Your task to perform on an android device: What is the news today? Image 0: 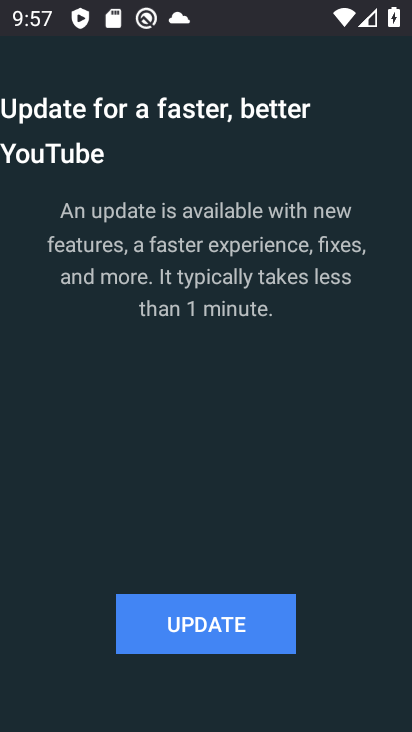
Step 0: press home button
Your task to perform on an android device: What is the news today? Image 1: 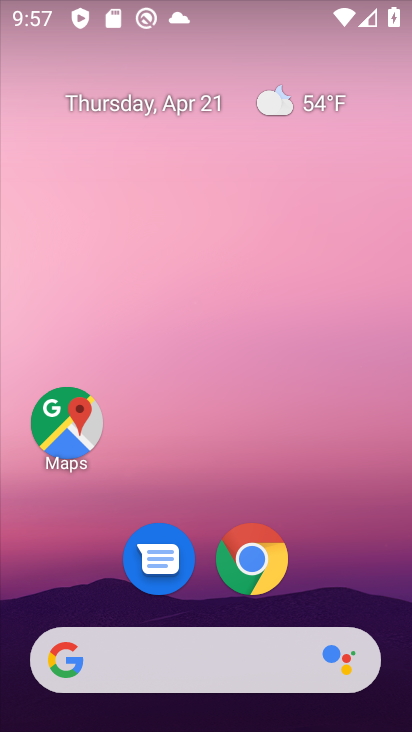
Step 1: task complete